Your task to perform on an android device: check out phone information Image 0: 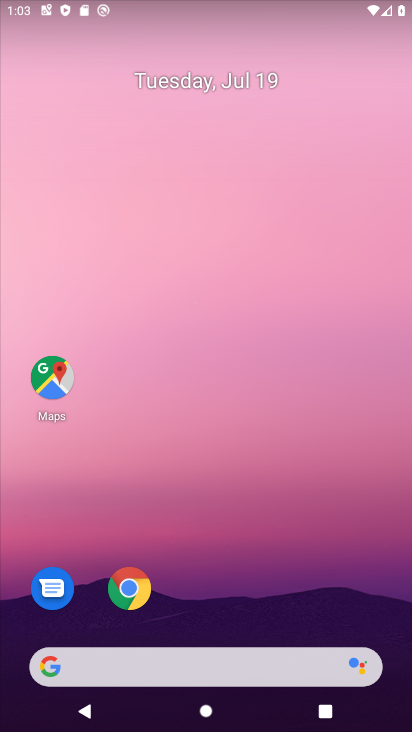
Step 0: drag from (305, 182) to (351, 113)
Your task to perform on an android device: check out phone information Image 1: 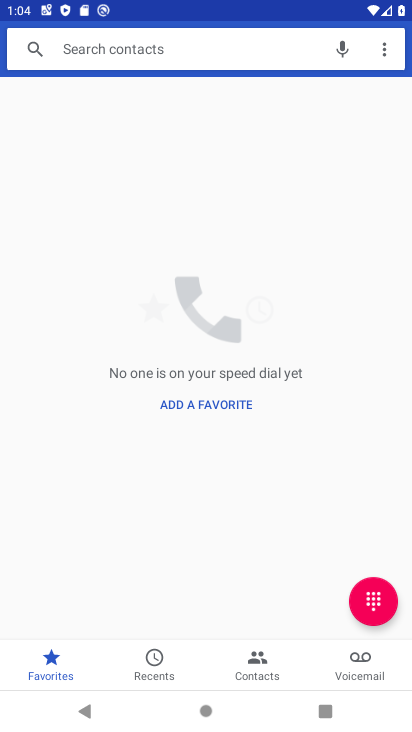
Step 1: click (271, 666)
Your task to perform on an android device: check out phone information Image 2: 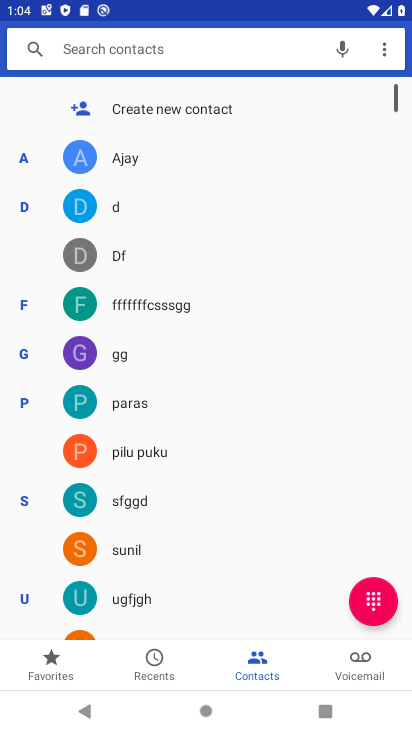
Step 2: click (164, 649)
Your task to perform on an android device: check out phone information Image 3: 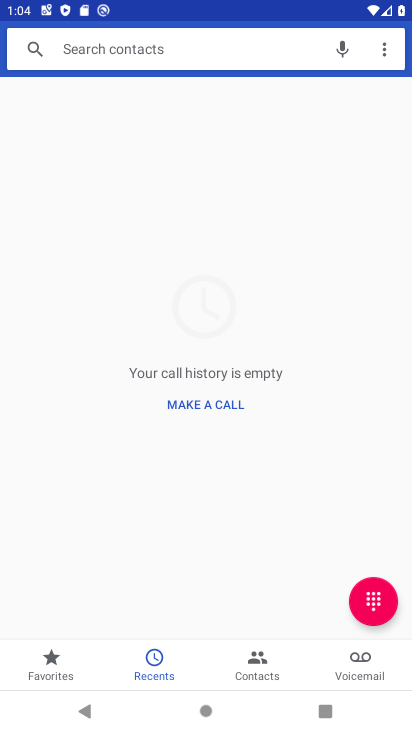
Step 3: task complete